Your task to perform on an android device: Open Chrome and go to the settings page Image 0: 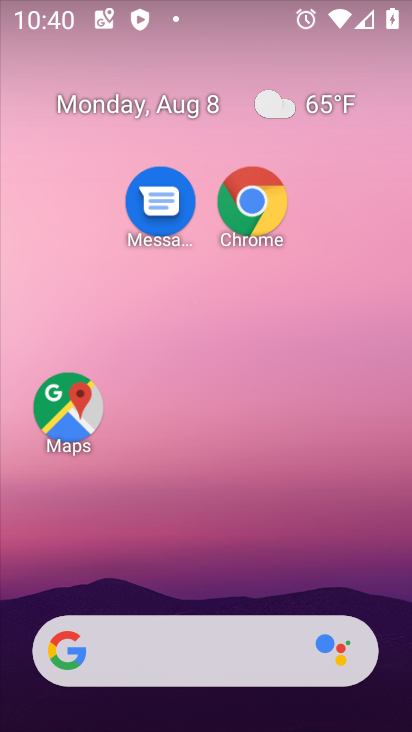
Step 0: press home button
Your task to perform on an android device: Open Chrome and go to the settings page Image 1: 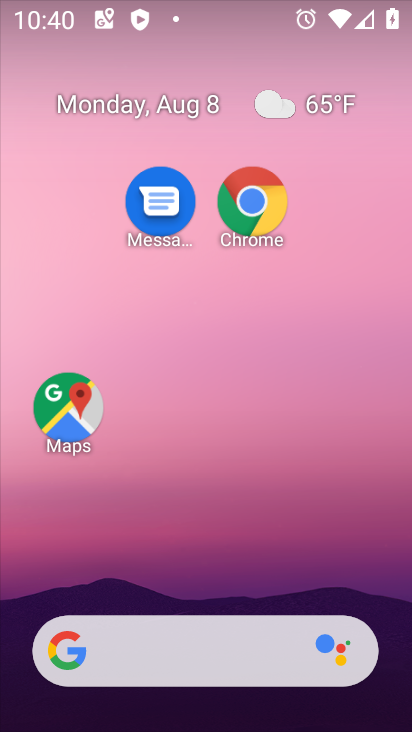
Step 1: click (241, 197)
Your task to perform on an android device: Open Chrome and go to the settings page Image 2: 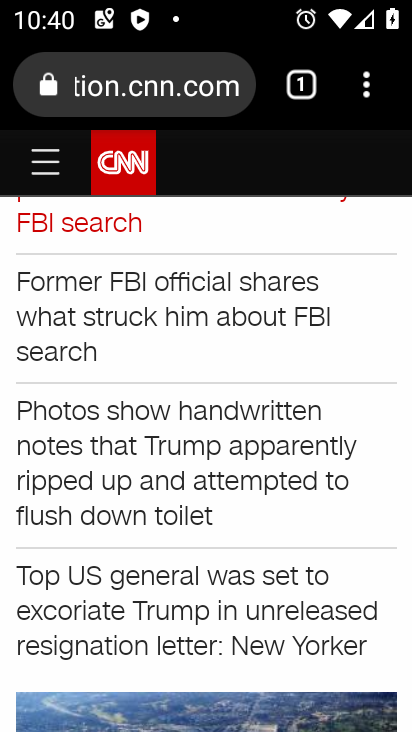
Step 2: click (369, 84)
Your task to perform on an android device: Open Chrome and go to the settings page Image 3: 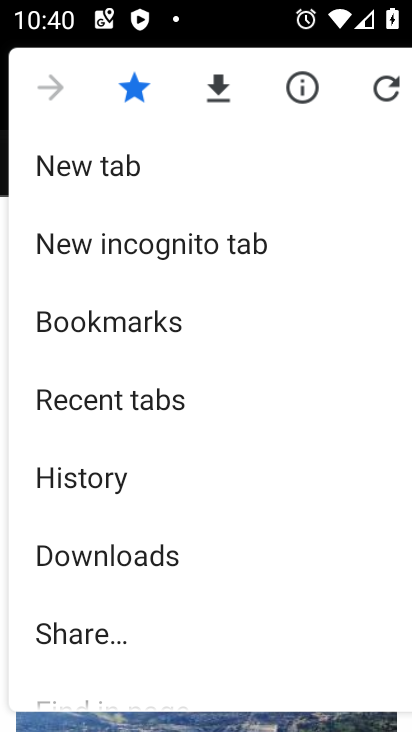
Step 3: drag from (172, 646) to (177, 128)
Your task to perform on an android device: Open Chrome and go to the settings page Image 4: 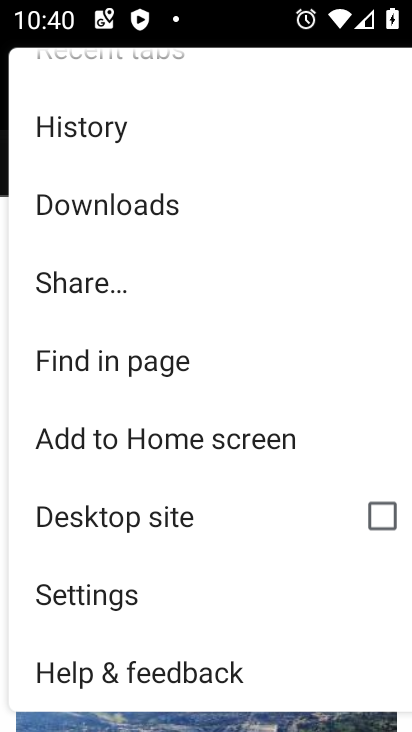
Step 4: click (153, 595)
Your task to perform on an android device: Open Chrome and go to the settings page Image 5: 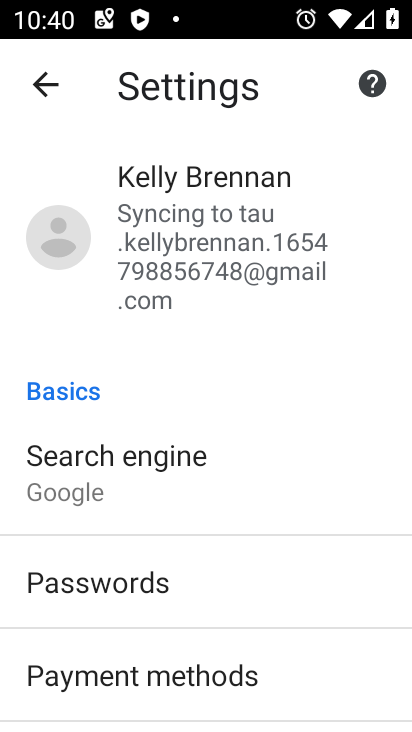
Step 5: task complete